Your task to perform on an android device: Open Reddit.com Image 0: 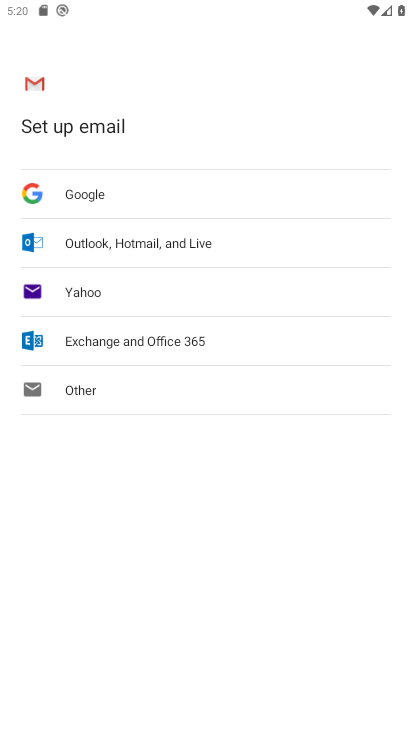
Step 0: press home button
Your task to perform on an android device: Open Reddit.com Image 1: 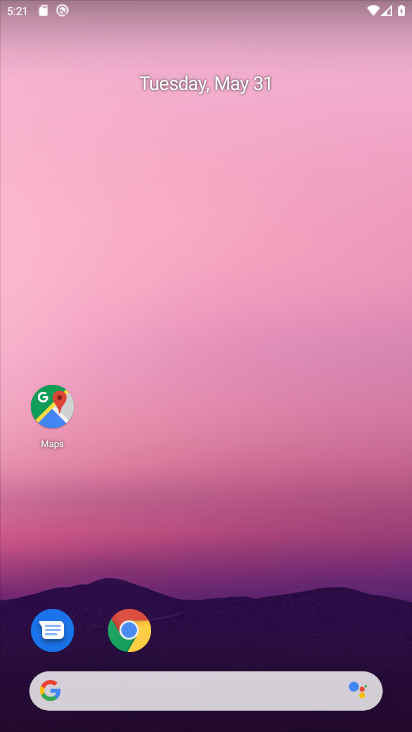
Step 1: click (122, 638)
Your task to perform on an android device: Open Reddit.com Image 2: 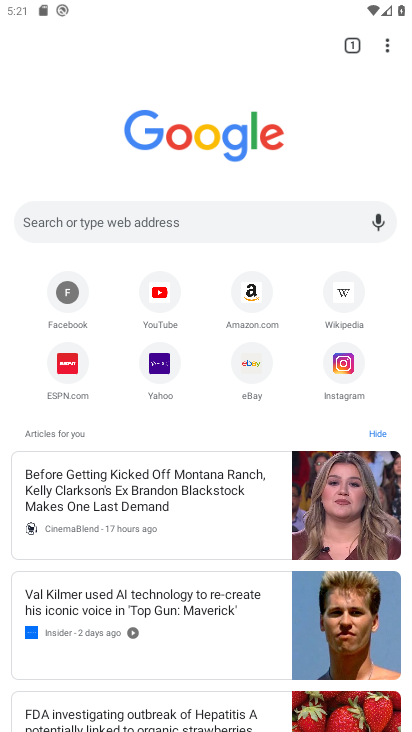
Step 2: click (197, 220)
Your task to perform on an android device: Open Reddit.com Image 3: 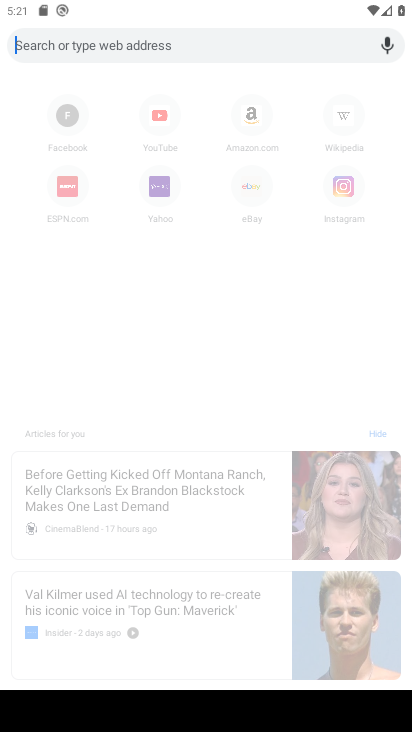
Step 3: type "Reddit.com"
Your task to perform on an android device: Open Reddit.com Image 4: 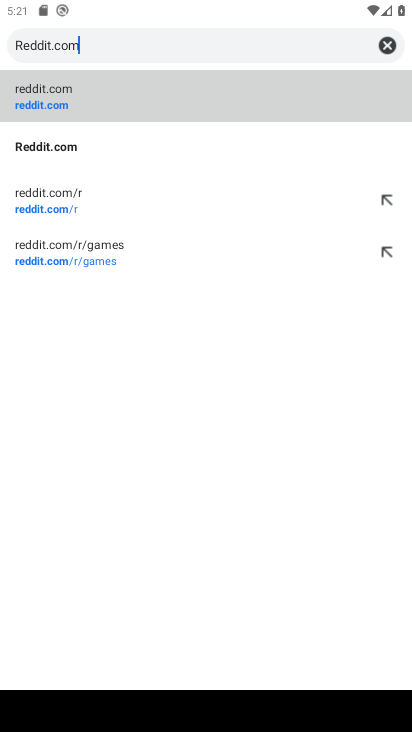
Step 4: click (91, 116)
Your task to perform on an android device: Open Reddit.com Image 5: 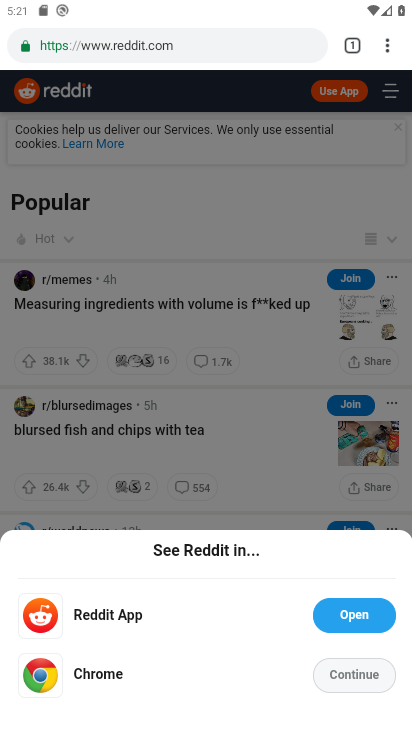
Step 5: task complete